Your task to perform on an android device: toggle translation in the chrome app Image 0: 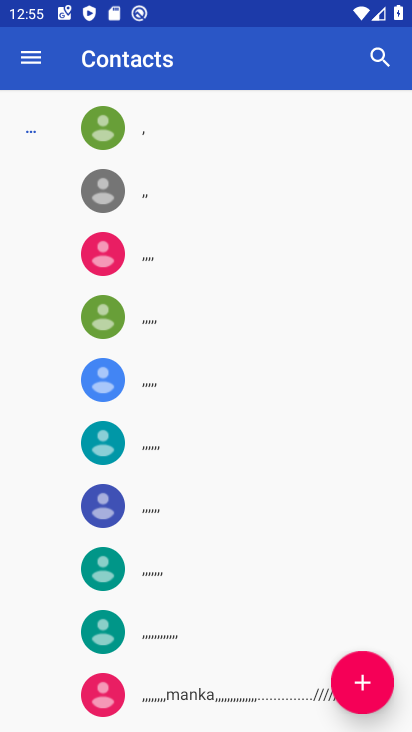
Step 0: press back button
Your task to perform on an android device: toggle translation in the chrome app Image 1: 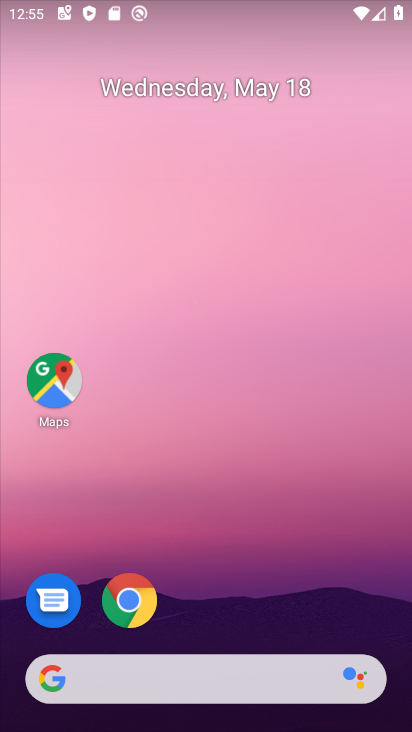
Step 1: click (129, 599)
Your task to perform on an android device: toggle translation in the chrome app Image 2: 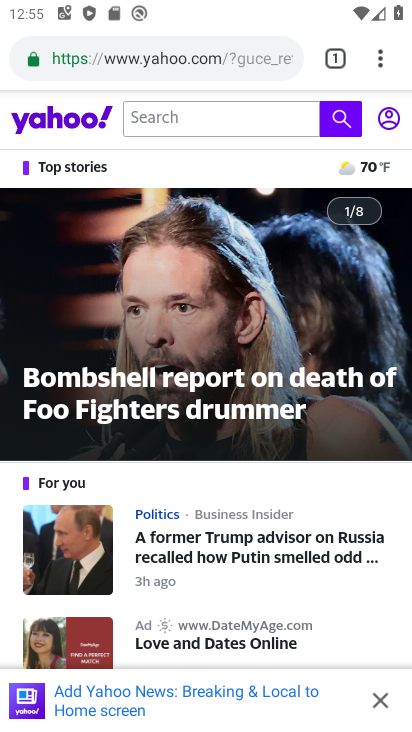
Step 2: click (380, 59)
Your task to perform on an android device: toggle translation in the chrome app Image 3: 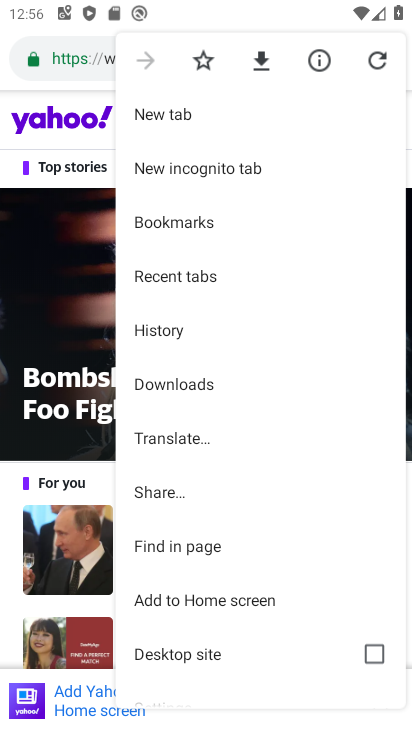
Step 3: drag from (213, 522) to (249, 451)
Your task to perform on an android device: toggle translation in the chrome app Image 4: 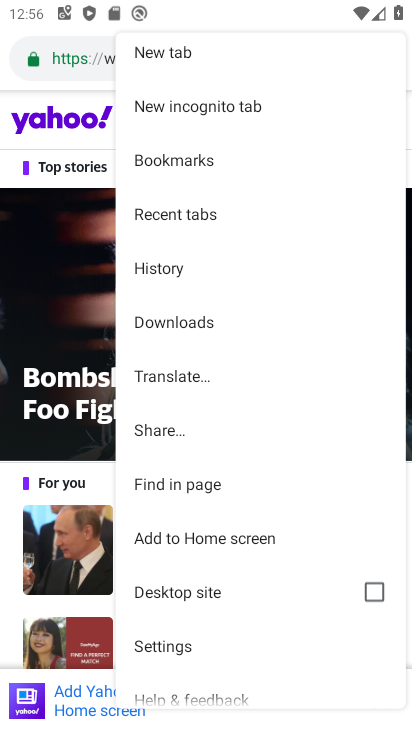
Step 4: drag from (199, 614) to (254, 535)
Your task to perform on an android device: toggle translation in the chrome app Image 5: 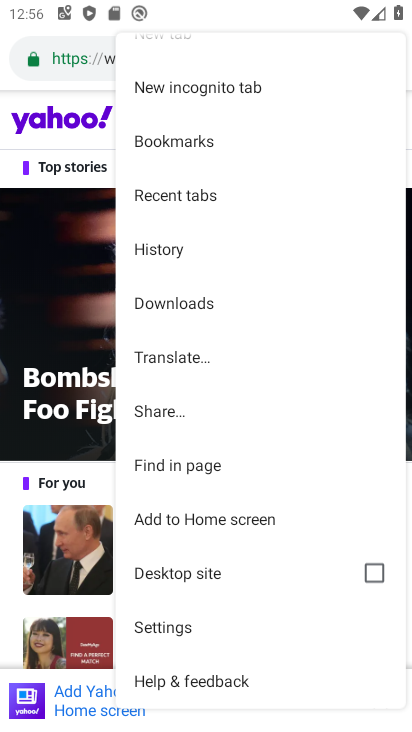
Step 5: click (176, 628)
Your task to perform on an android device: toggle translation in the chrome app Image 6: 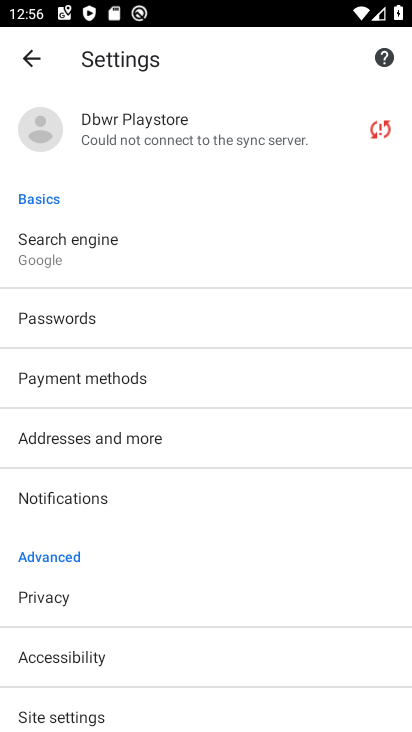
Step 6: drag from (164, 535) to (196, 440)
Your task to perform on an android device: toggle translation in the chrome app Image 7: 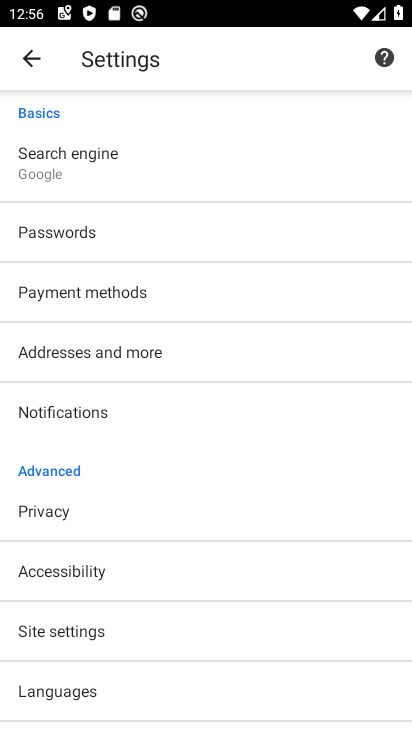
Step 7: drag from (128, 587) to (199, 486)
Your task to perform on an android device: toggle translation in the chrome app Image 8: 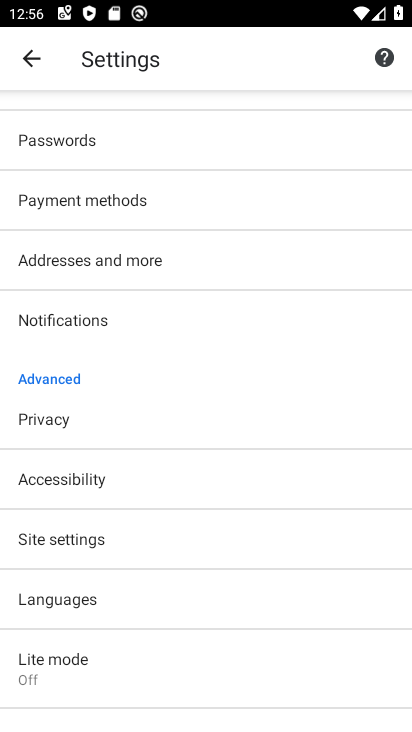
Step 8: click (71, 600)
Your task to perform on an android device: toggle translation in the chrome app Image 9: 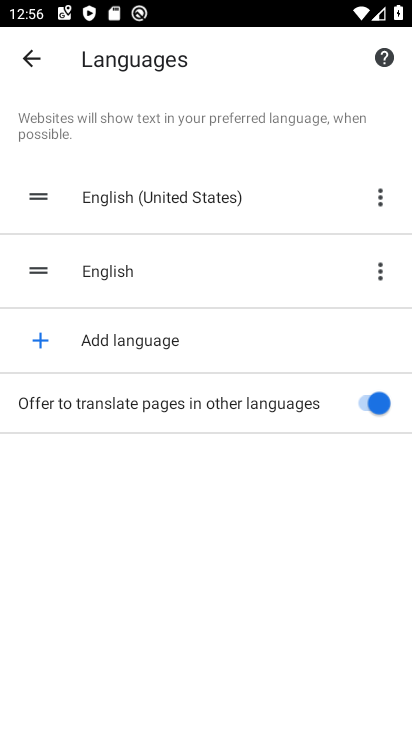
Step 9: click (372, 406)
Your task to perform on an android device: toggle translation in the chrome app Image 10: 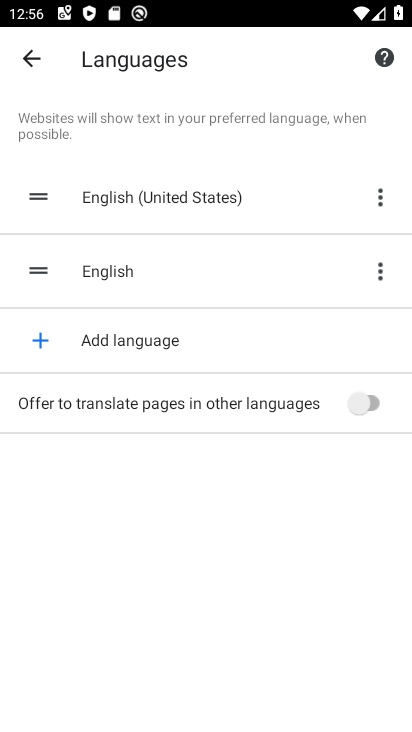
Step 10: task complete